Your task to perform on an android device: Go to Reddit.com Image 0: 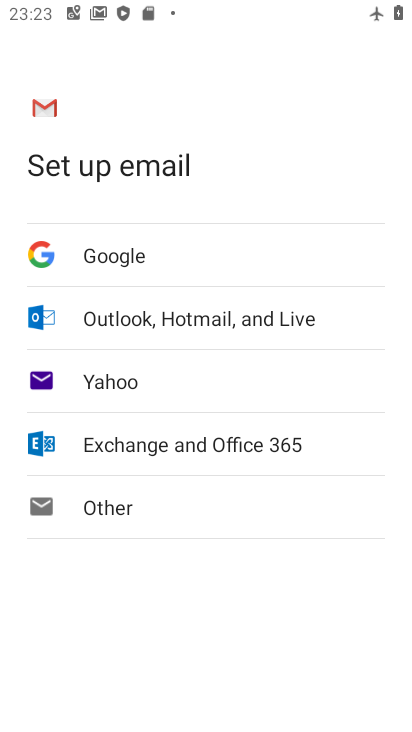
Step 0: press home button
Your task to perform on an android device: Go to Reddit.com Image 1: 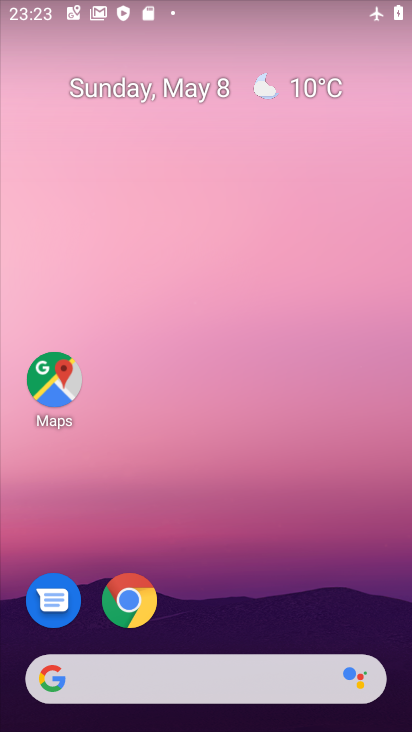
Step 1: click (216, 696)
Your task to perform on an android device: Go to Reddit.com Image 2: 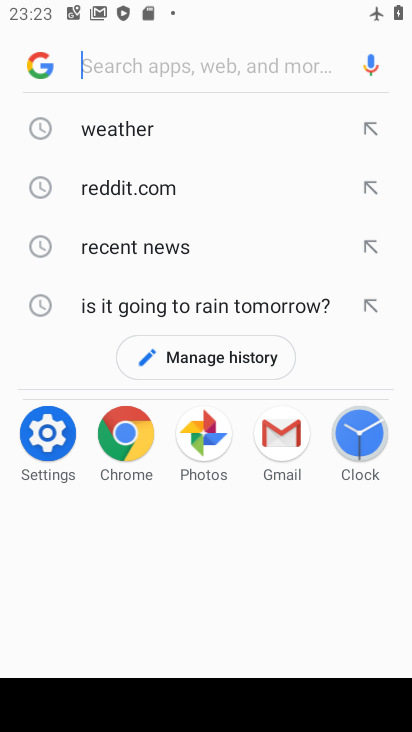
Step 2: click (99, 196)
Your task to perform on an android device: Go to Reddit.com Image 3: 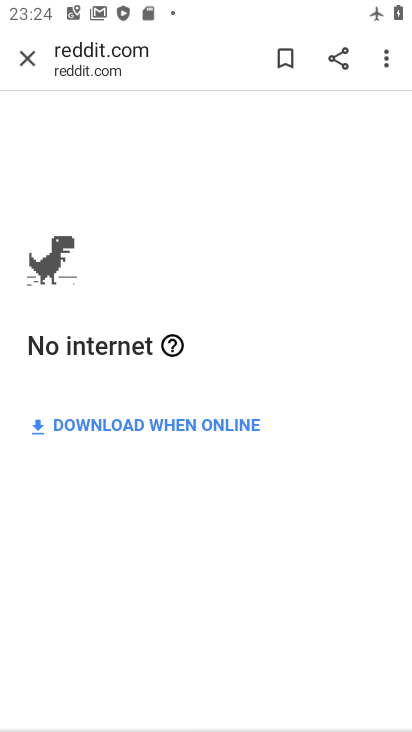
Step 3: drag from (234, 1) to (287, 639)
Your task to perform on an android device: Go to Reddit.com Image 4: 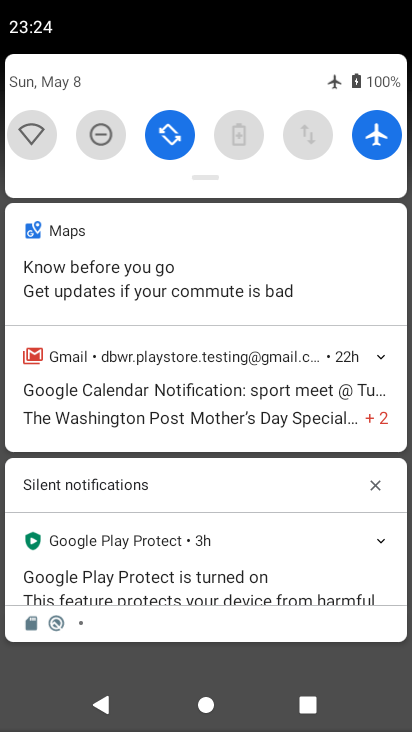
Step 4: click (376, 136)
Your task to perform on an android device: Go to Reddit.com Image 5: 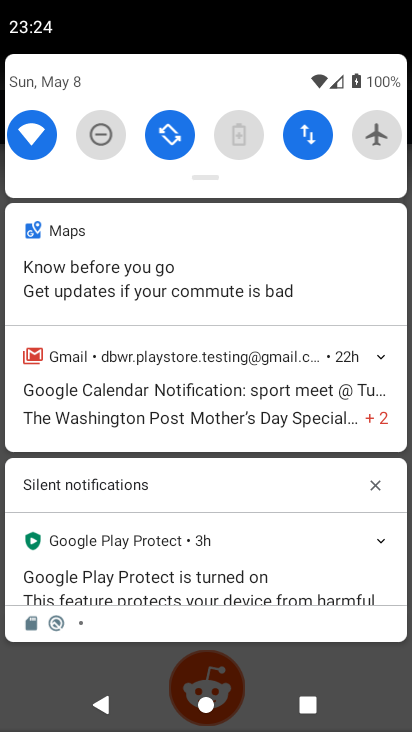
Step 5: click (285, 667)
Your task to perform on an android device: Go to Reddit.com Image 6: 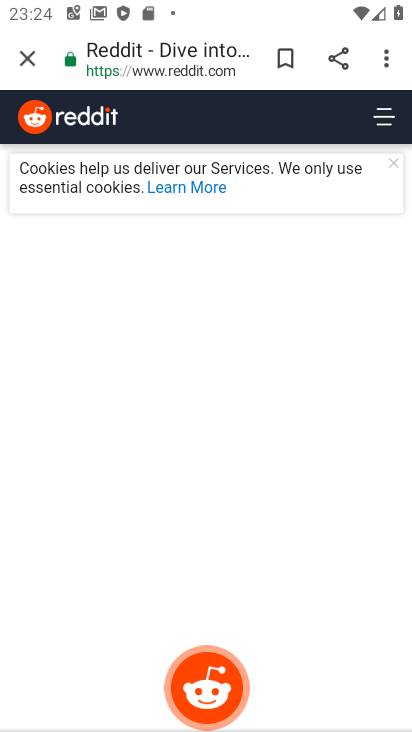
Step 6: task complete